Your task to perform on an android device: Search for Mexican restaurants on Maps Image 0: 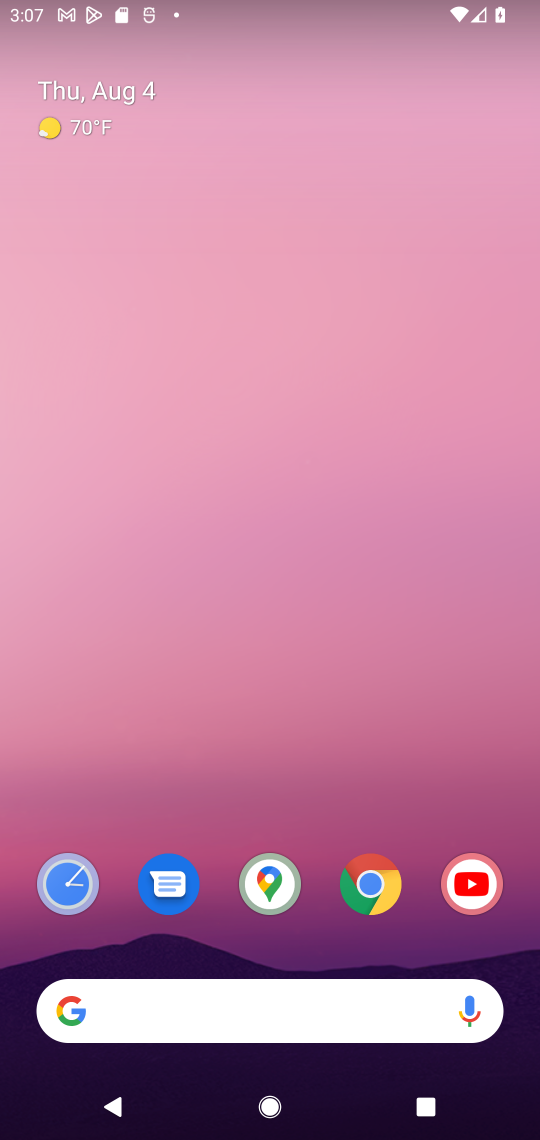
Step 0: click (262, 890)
Your task to perform on an android device: Search for Mexican restaurants on Maps Image 1: 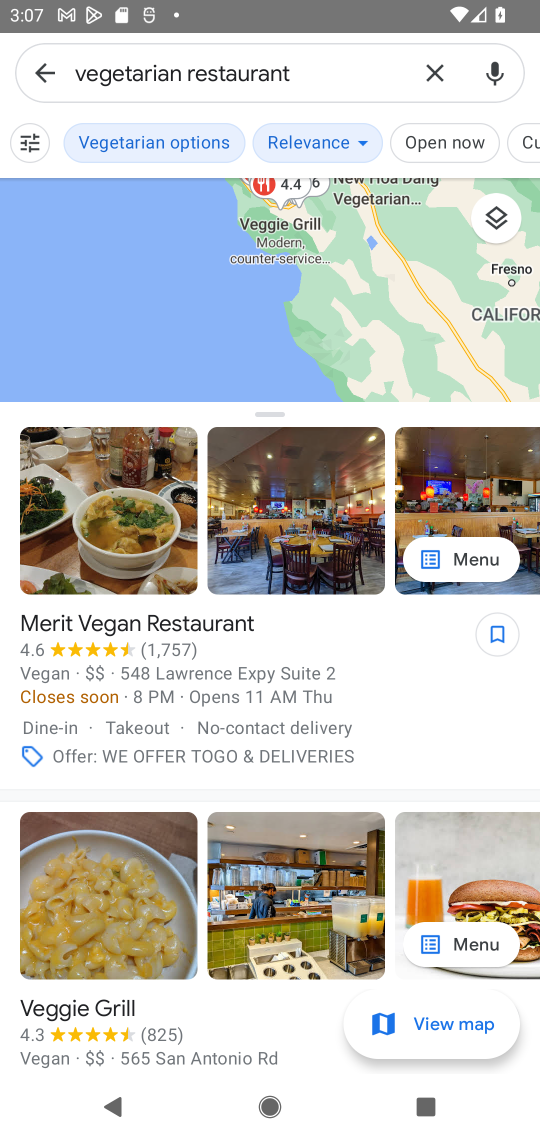
Step 1: click (437, 78)
Your task to perform on an android device: Search for Mexican restaurants on Maps Image 2: 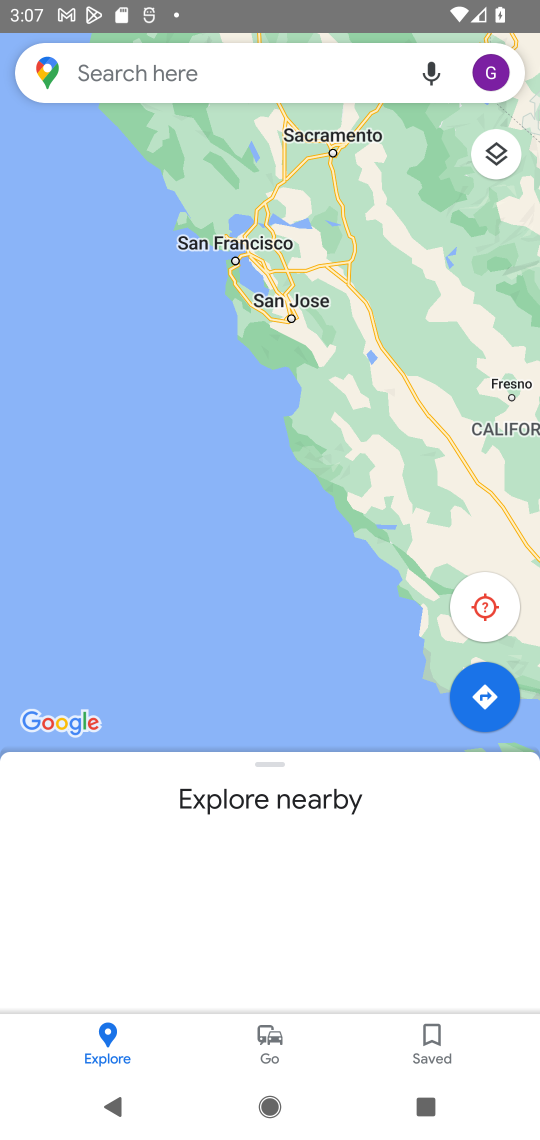
Step 2: click (278, 73)
Your task to perform on an android device: Search for Mexican restaurants on Maps Image 3: 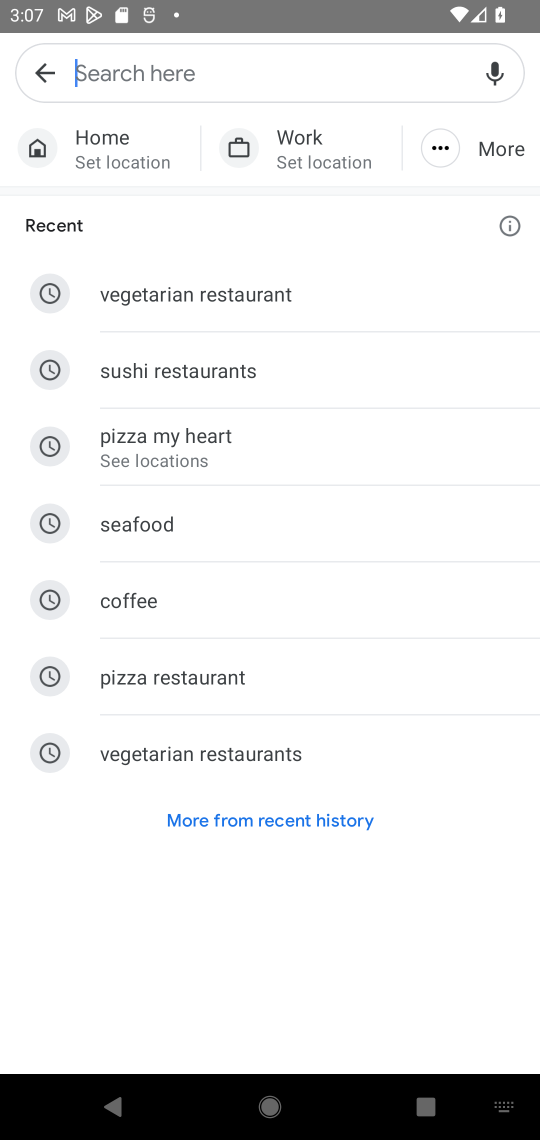
Step 3: type "mexican"
Your task to perform on an android device: Search for Mexican restaurants on Maps Image 4: 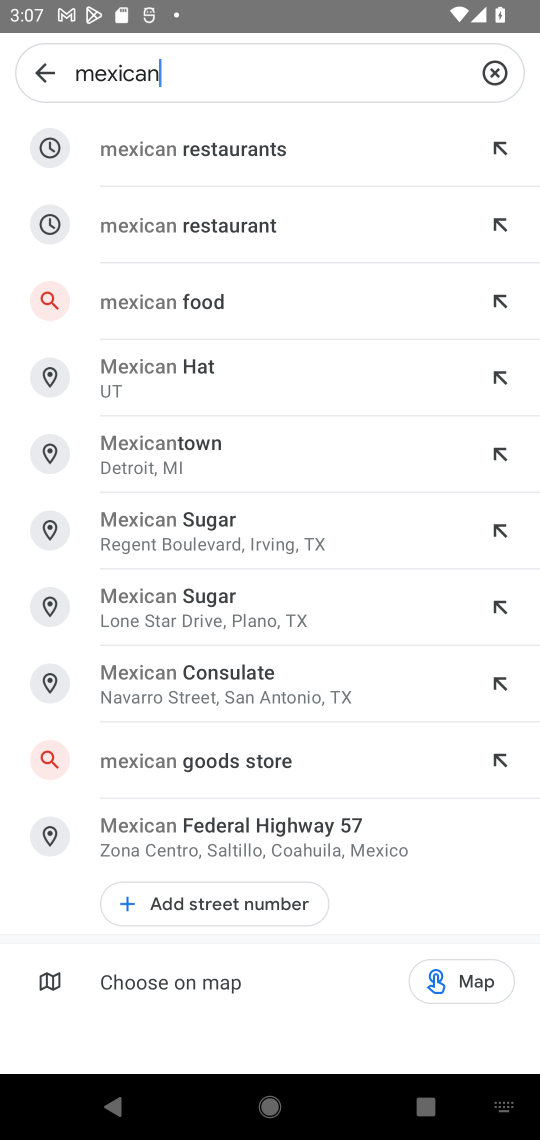
Step 4: click (352, 245)
Your task to perform on an android device: Search for Mexican restaurants on Maps Image 5: 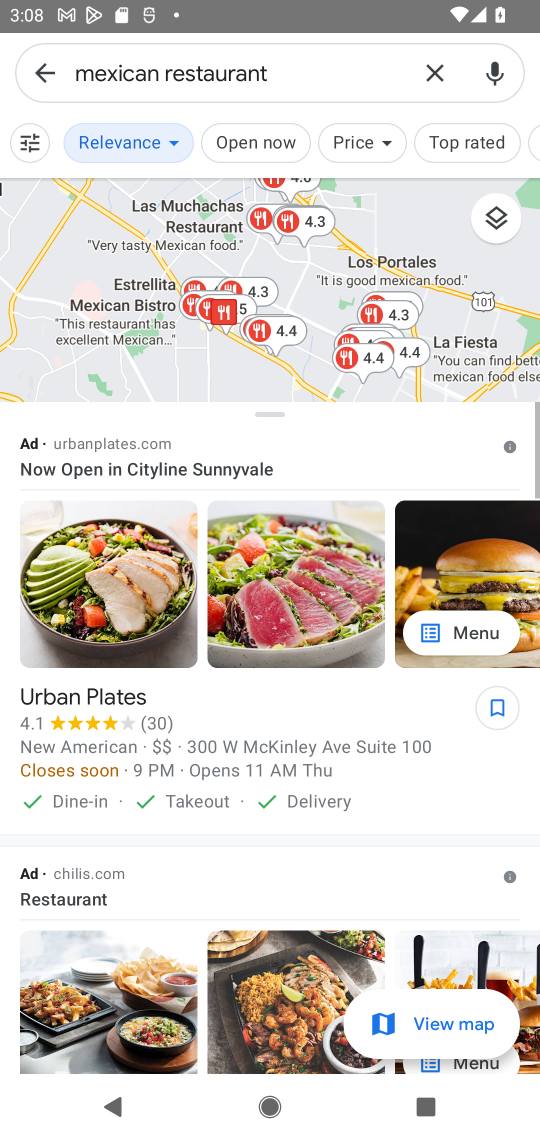
Step 5: task complete